Your task to perform on an android device: turn off location Image 0: 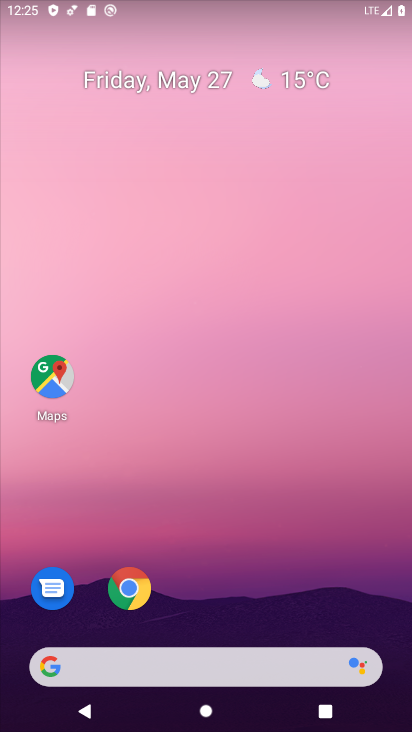
Step 0: drag from (398, 626) to (315, 37)
Your task to perform on an android device: turn off location Image 1: 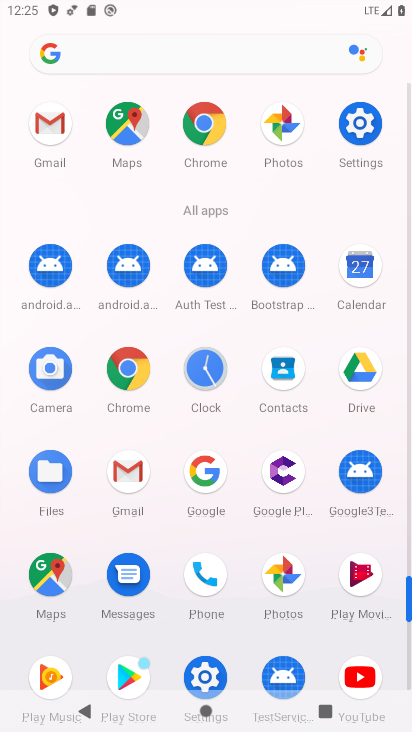
Step 1: click (409, 681)
Your task to perform on an android device: turn off location Image 2: 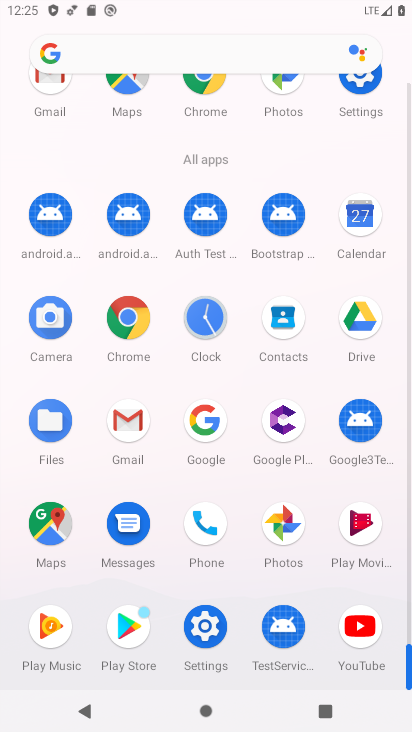
Step 2: click (205, 626)
Your task to perform on an android device: turn off location Image 3: 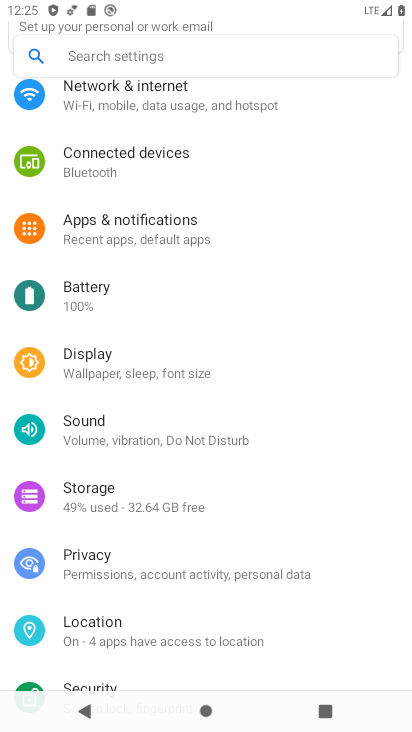
Step 3: click (69, 633)
Your task to perform on an android device: turn off location Image 4: 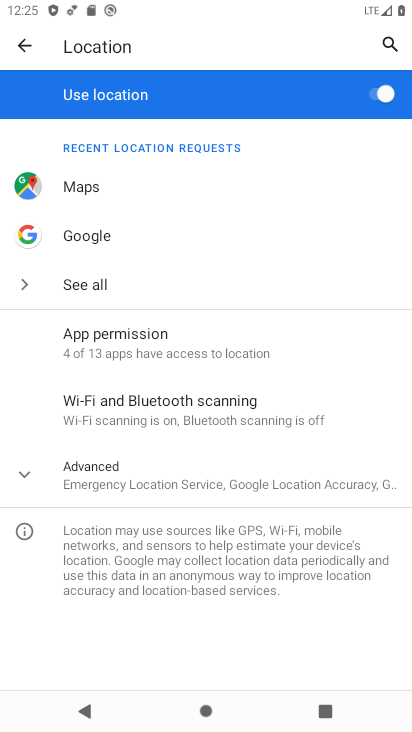
Step 4: click (24, 482)
Your task to perform on an android device: turn off location Image 5: 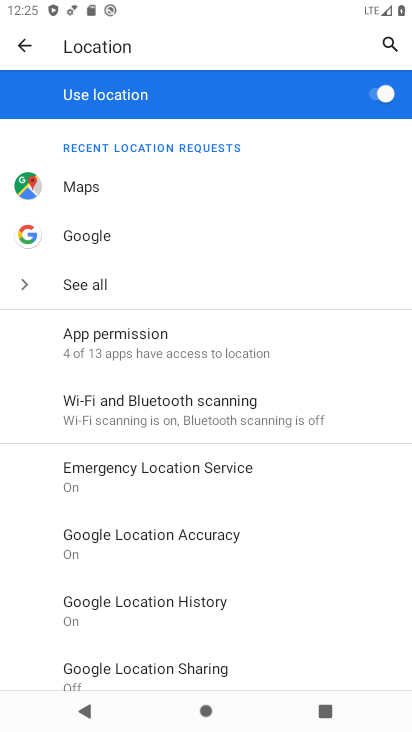
Step 5: click (372, 87)
Your task to perform on an android device: turn off location Image 6: 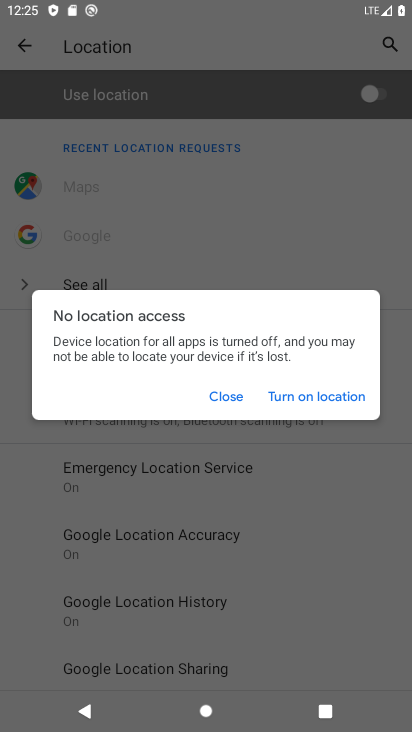
Step 6: task complete